Your task to perform on an android device: Search for Mexican restaurants on Maps Image 0: 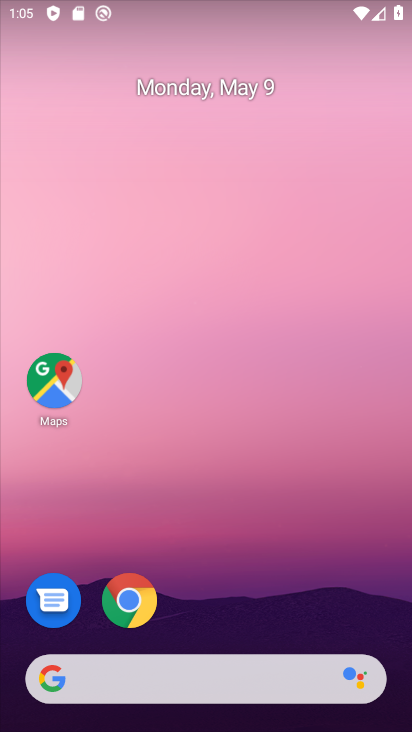
Step 0: click (44, 387)
Your task to perform on an android device: Search for Mexican restaurants on Maps Image 1: 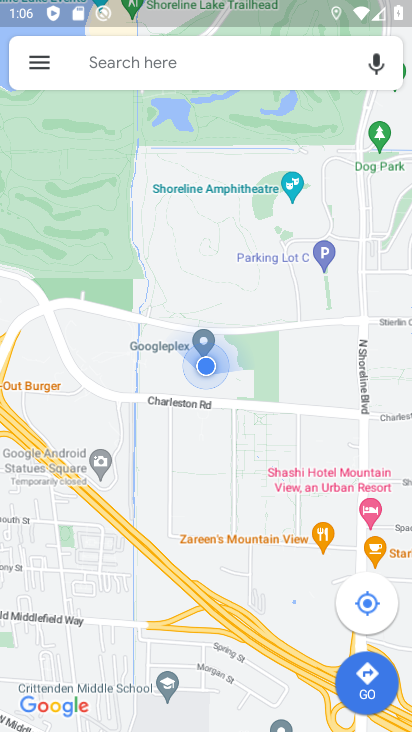
Step 1: click (168, 58)
Your task to perform on an android device: Search for Mexican restaurants on Maps Image 2: 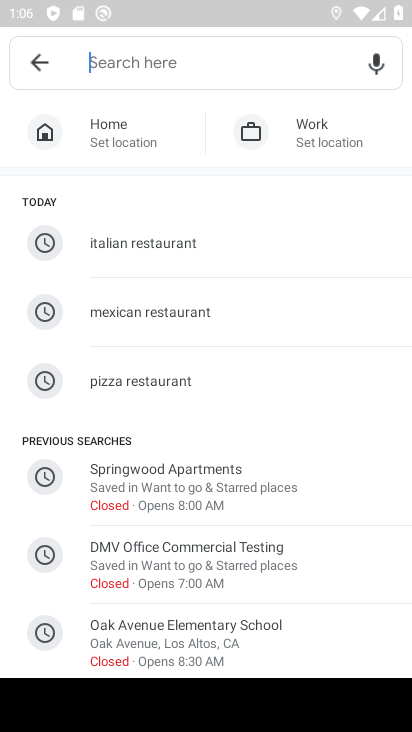
Step 2: click (167, 295)
Your task to perform on an android device: Search for Mexican restaurants on Maps Image 3: 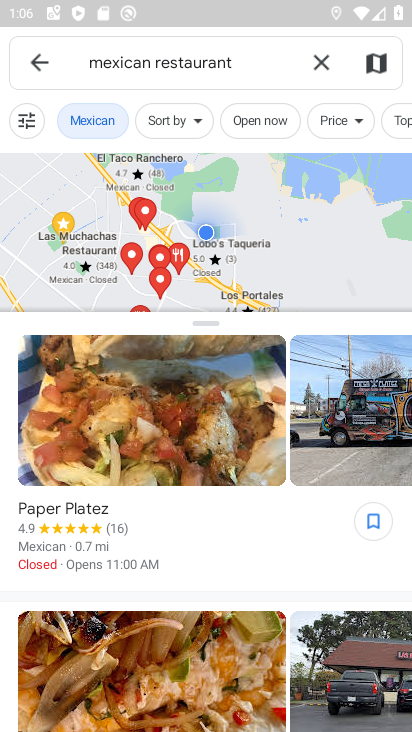
Step 3: task complete